Your task to perform on an android device: Open Google Chrome Image 0: 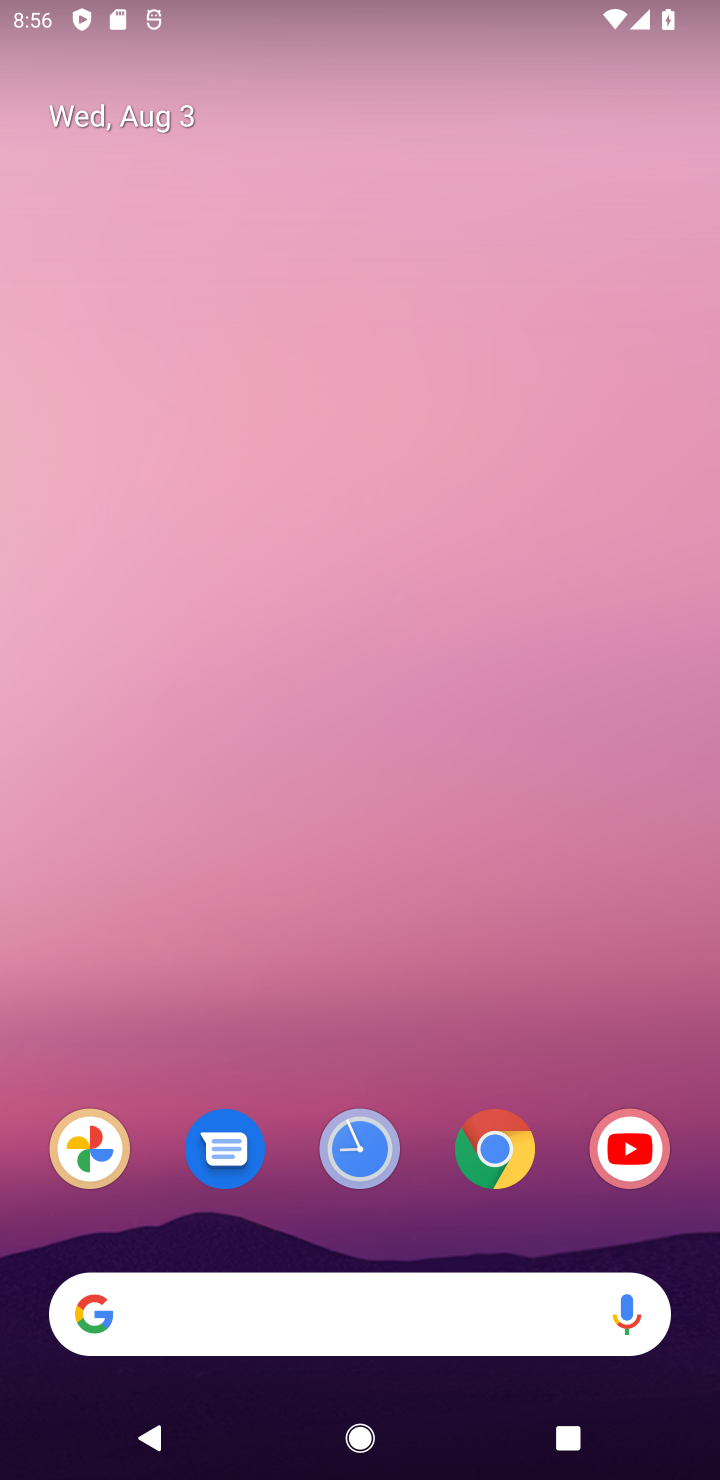
Step 0: click (518, 1140)
Your task to perform on an android device: Open Google Chrome Image 1: 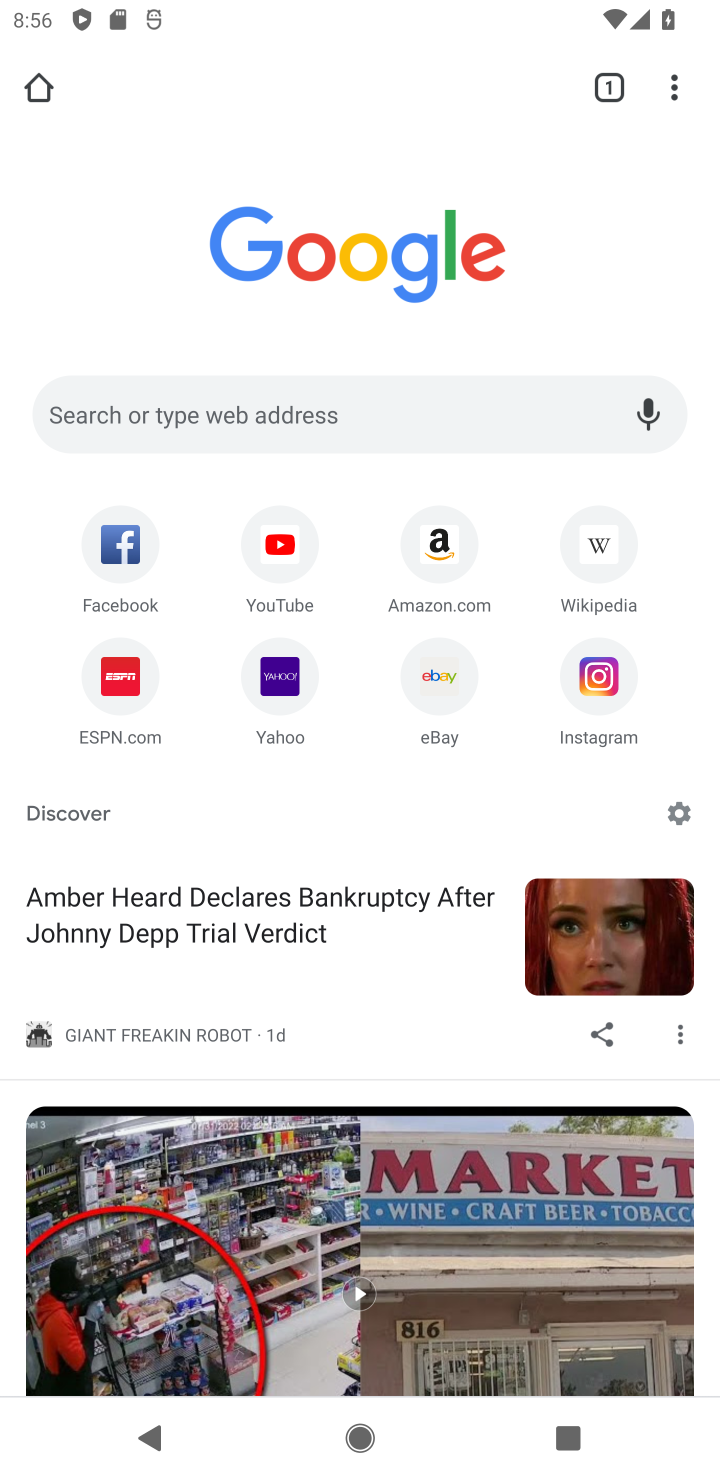
Step 1: task complete